Your task to perform on an android device: set default search engine in the chrome app Image 0: 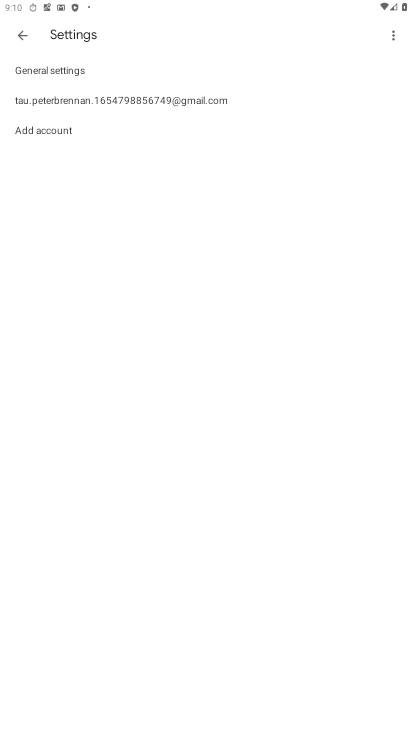
Step 0: press home button
Your task to perform on an android device: set default search engine in the chrome app Image 1: 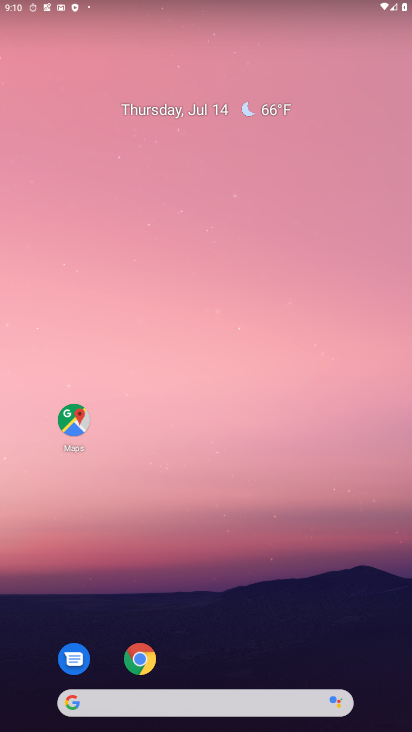
Step 1: click (146, 662)
Your task to perform on an android device: set default search engine in the chrome app Image 2: 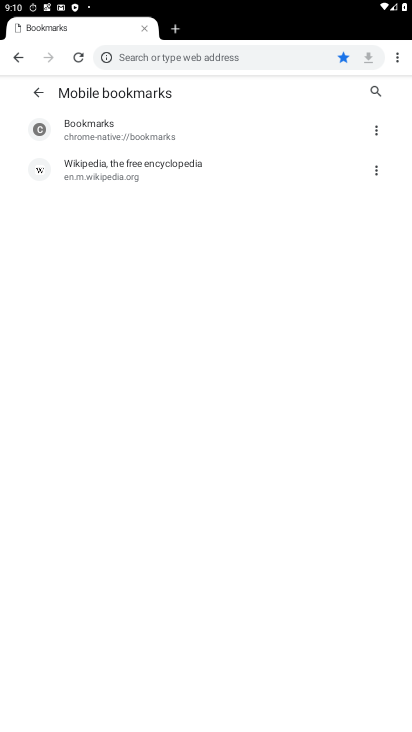
Step 2: drag from (392, 59) to (273, 269)
Your task to perform on an android device: set default search engine in the chrome app Image 3: 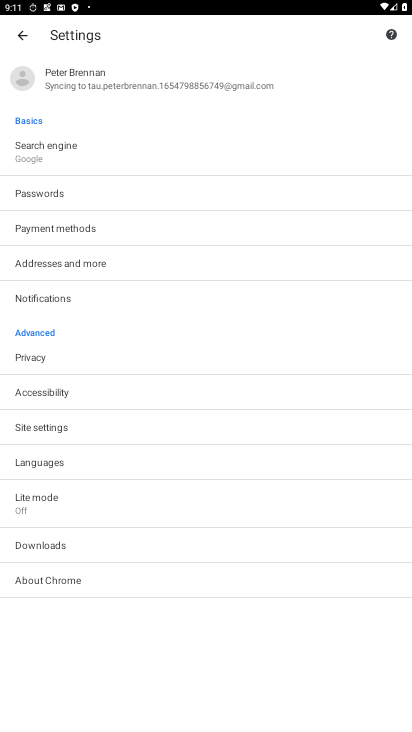
Step 3: click (44, 152)
Your task to perform on an android device: set default search engine in the chrome app Image 4: 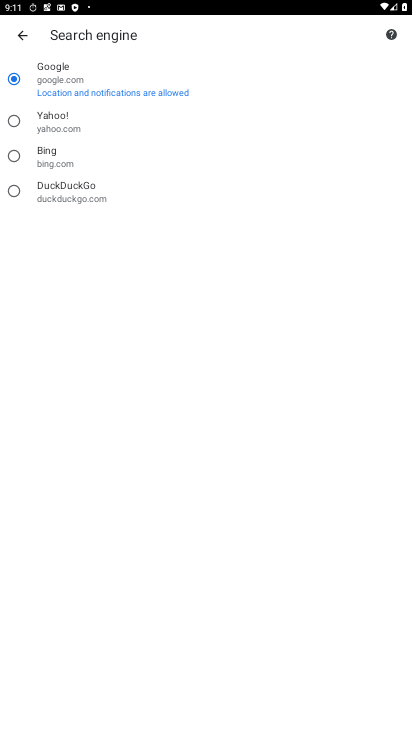
Step 4: task complete